Your task to perform on an android device: remove spam from my inbox in the gmail app Image 0: 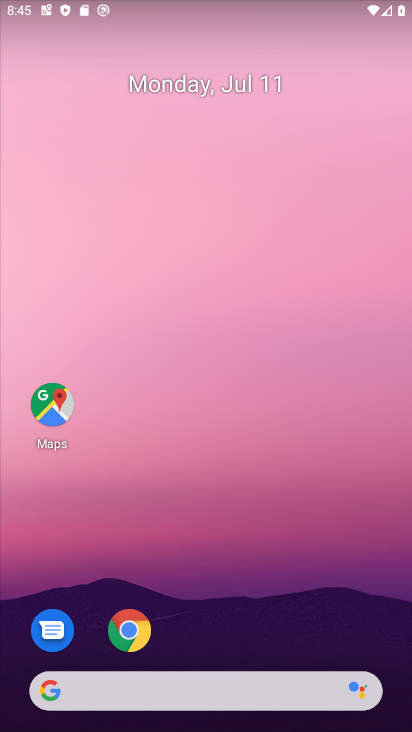
Step 0: drag from (244, 613) to (244, 111)
Your task to perform on an android device: remove spam from my inbox in the gmail app Image 1: 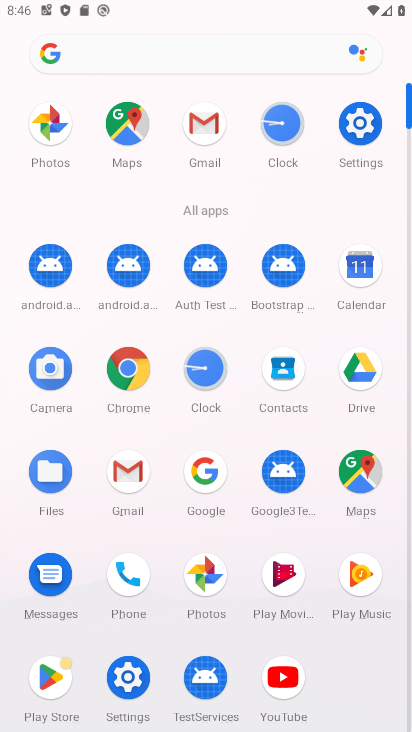
Step 1: click (125, 464)
Your task to perform on an android device: remove spam from my inbox in the gmail app Image 2: 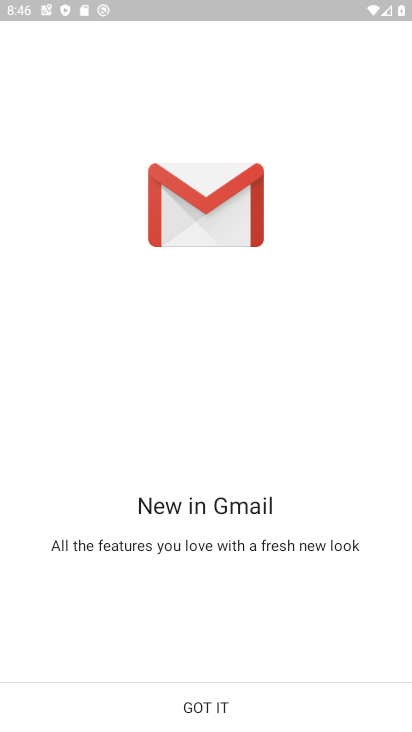
Step 2: click (215, 700)
Your task to perform on an android device: remove spam from my inbox in the gmail app Image 3: 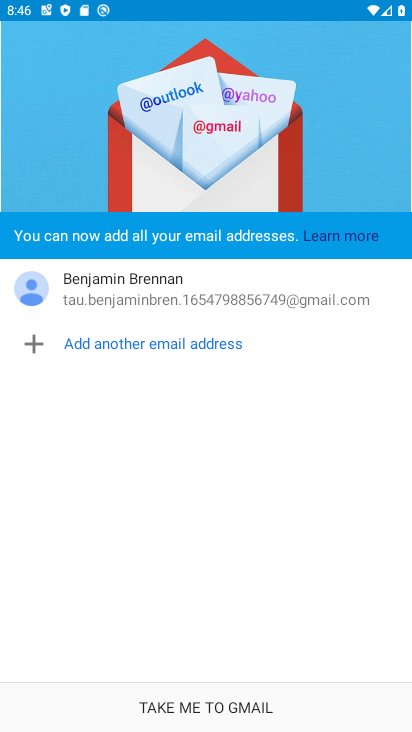
Step 3: click (214, 702)
Your task to perform on an android device: remove spam from my inbox in the gmail app Image 4: 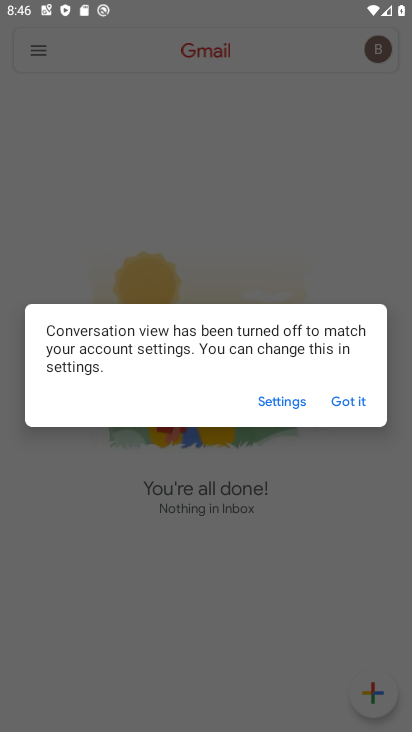
Step 4: click (344, 401)
Your task to perform on an android device: remove spam from my inbox in the gmail app Image 5: 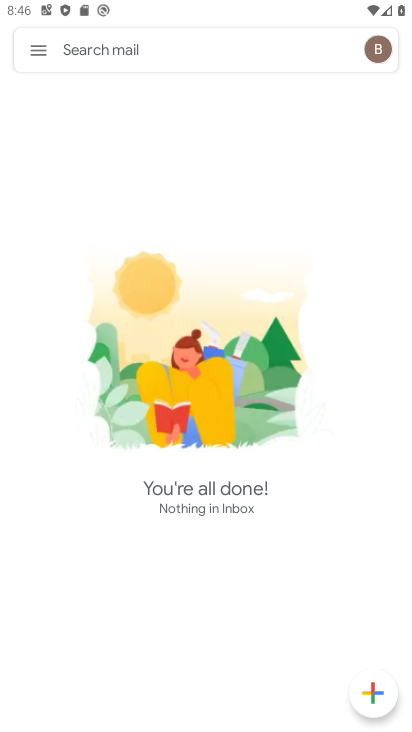
Step 5: click (43, 57)
Your task to perform on an android device: remove spam from my inbox in the gmail app Image 6: 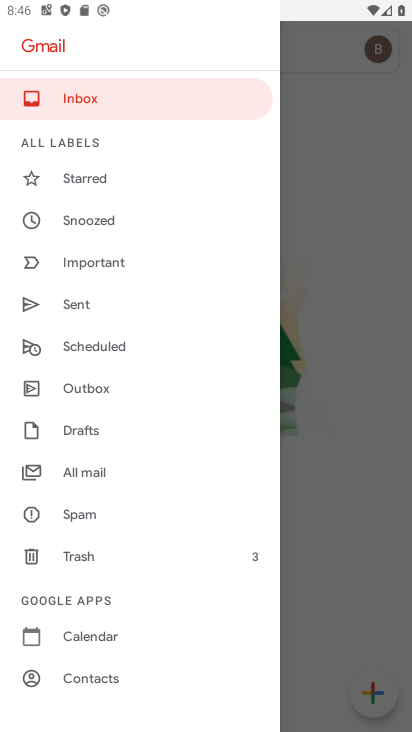
Step 6: click (89, 510)
Your task to perform on an android device: remove spam from my inbox in the gmail app Image 7: 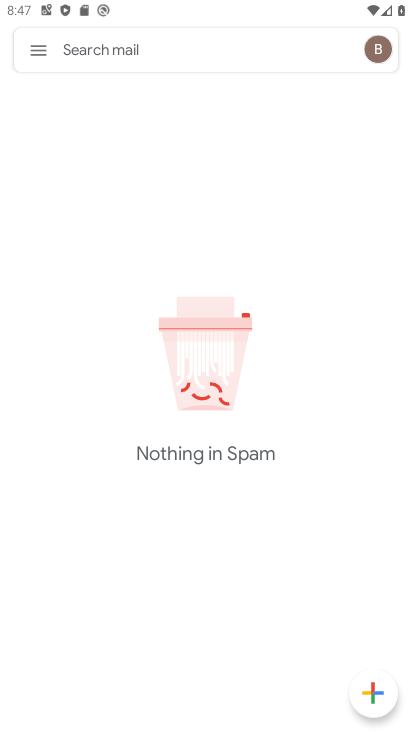
Step 7: task complete